Your task to perform on an android device: Clear all items from cart on costco.com. Add "usb-c to usb-a" to the cart on costco.com Image 0: 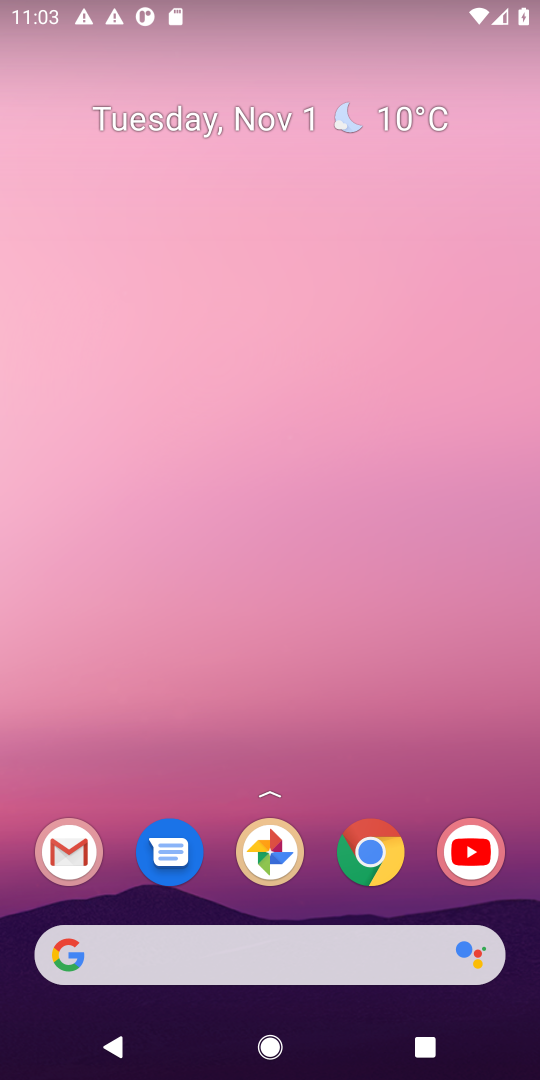
Step 0: click (56, 957)
Your task to perform on an android device: Clear all items from cart on costco.com. Add "usb-c to usb-a" to the cart on costco.com Image 1: 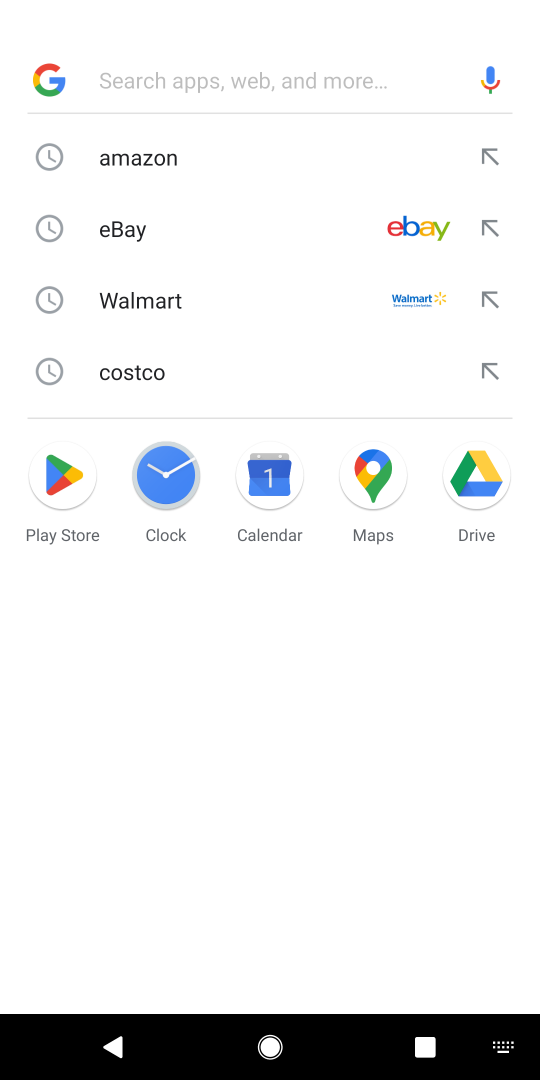
Step 1: click (132, 370)
Your task to perform on an android device: Clear all items from cart on costco.com. Add "usb-c to usb-a" to the cart on costco.com Image 2: 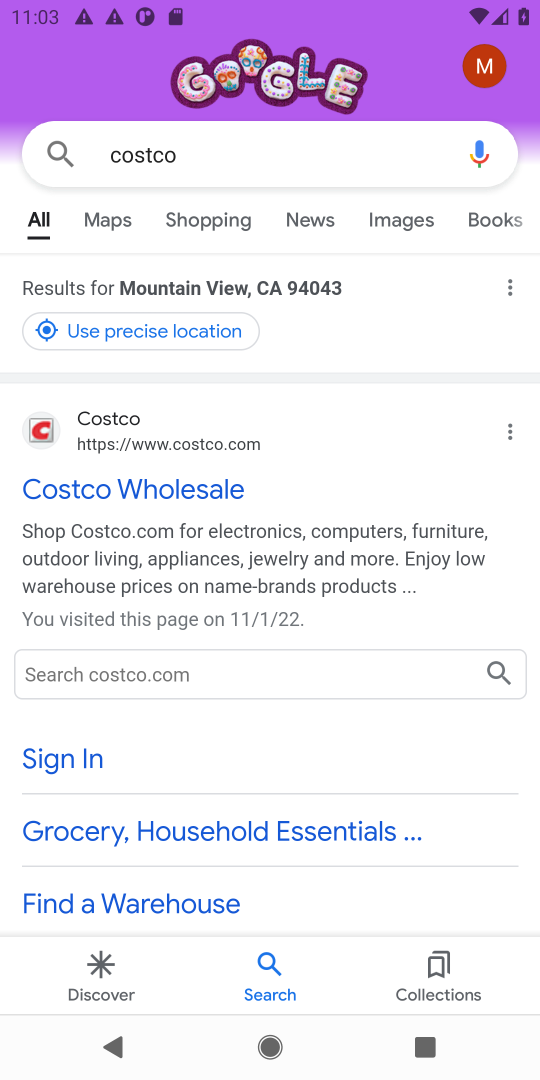
Step 2: click (98, 484)
Your task to perform on an android device: Clear all items from cart on costco.com. Add "usb-c to usb-a" to the cart on costco.com Image 3: 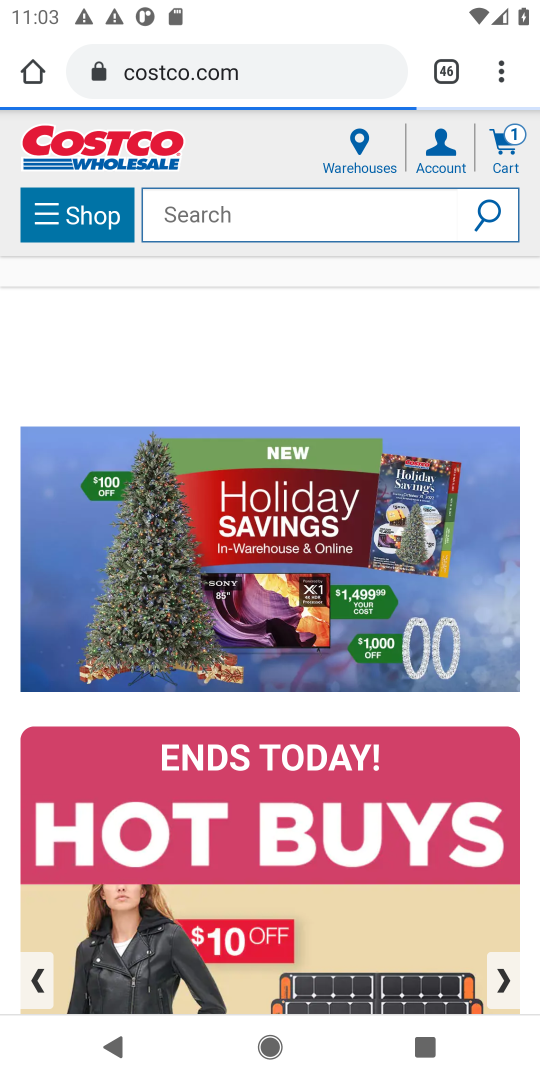
Step 3: click (501, 142)
Your task to perform on an android device: Clear all items from cart on costco.com. Add "usb-c to usb-a" to the cart on costco.com Image 4: 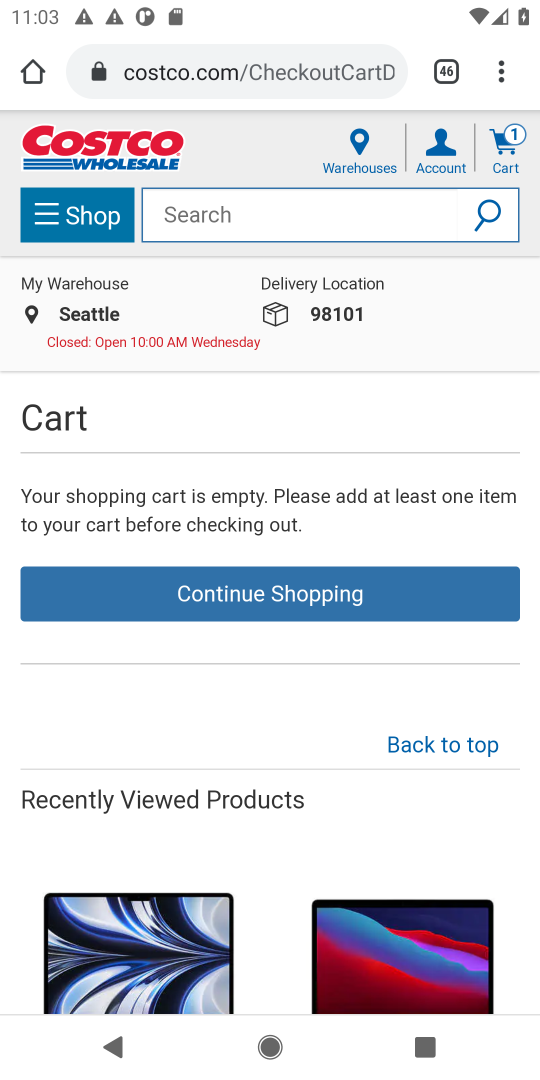
Step 4: drag from (246, 681) to (239, 978)
Your task to perform on an android device: Clear all items from cart on costco.com. Add "usb-c to usb-a" to the cart on costco.com Image 5: 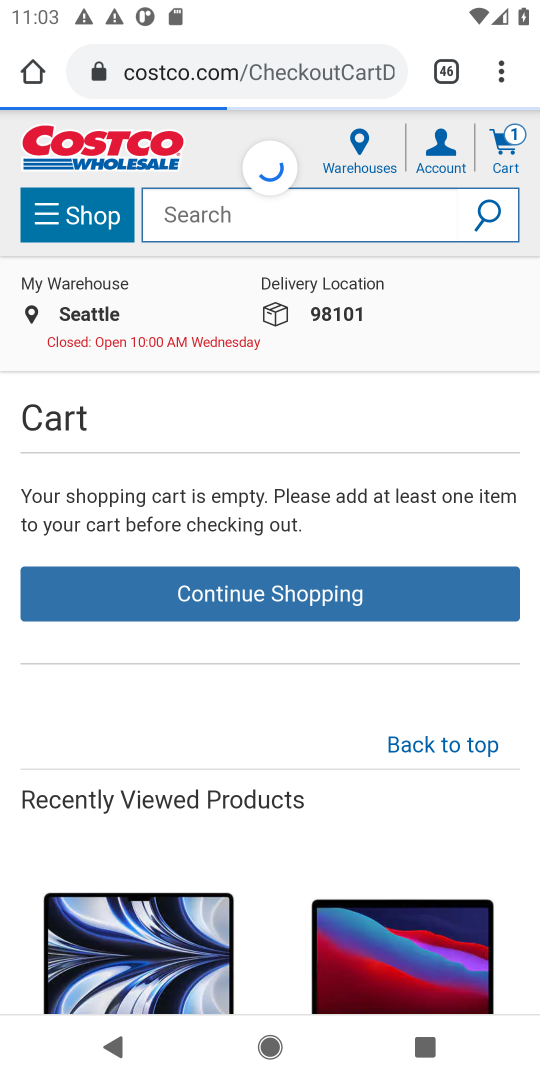
Step 5: drag from (267, 785) to (274, 461)
Your task to perform on an android device: Clear all items from cart on costco.com. Add "usb-c to usb-a" to the cart on costco.com Image 6: 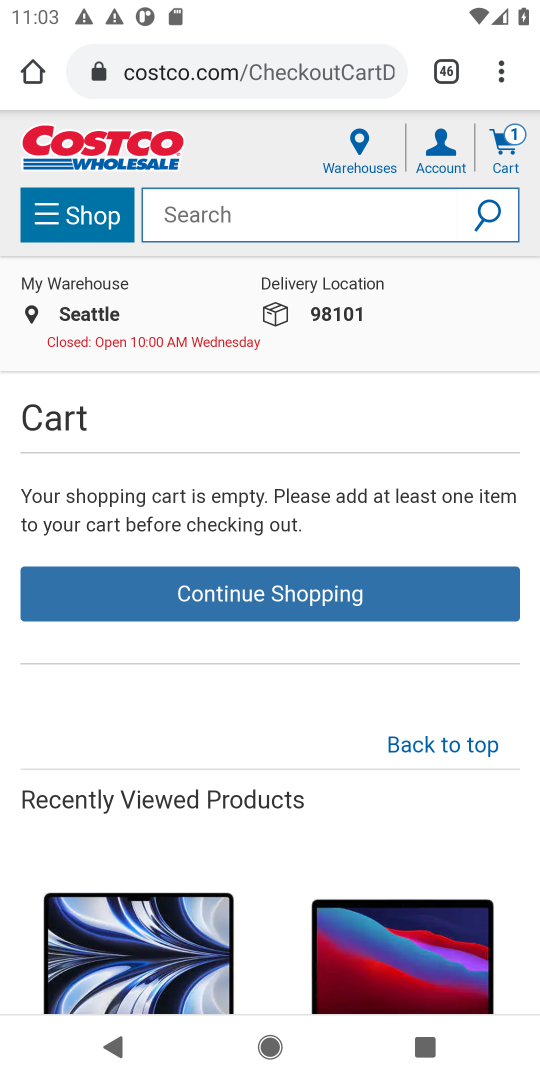
Step 6: click (155, 209)
Your task to perform on an android device: Clear all items from cart on costco.com. Add "usb-c to usb-a" to the cart on costco.com Image 7: 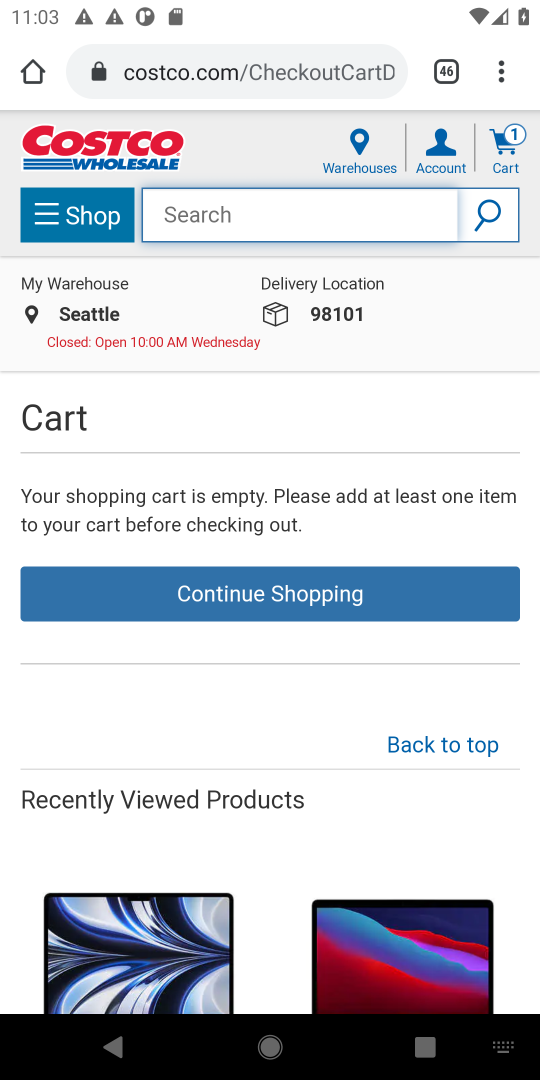
Step 7: type "usb-c to usb-a"
Your task to perform on an android device: Clear all items from cart on costco.com. Add "usb-c to usb-a" to the cart on costco.com Image 8: 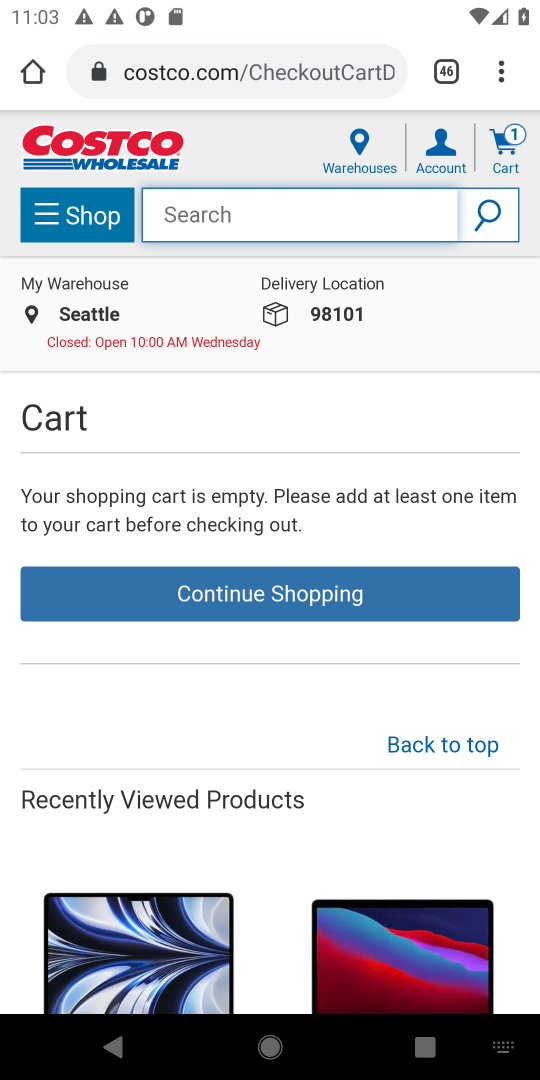
Step 8: click (201, 214)
Your task to perform on an android device: Clear all items from cart on costco.com. Add "usb-c to usb-a" to the cart on costco.com Image 9: 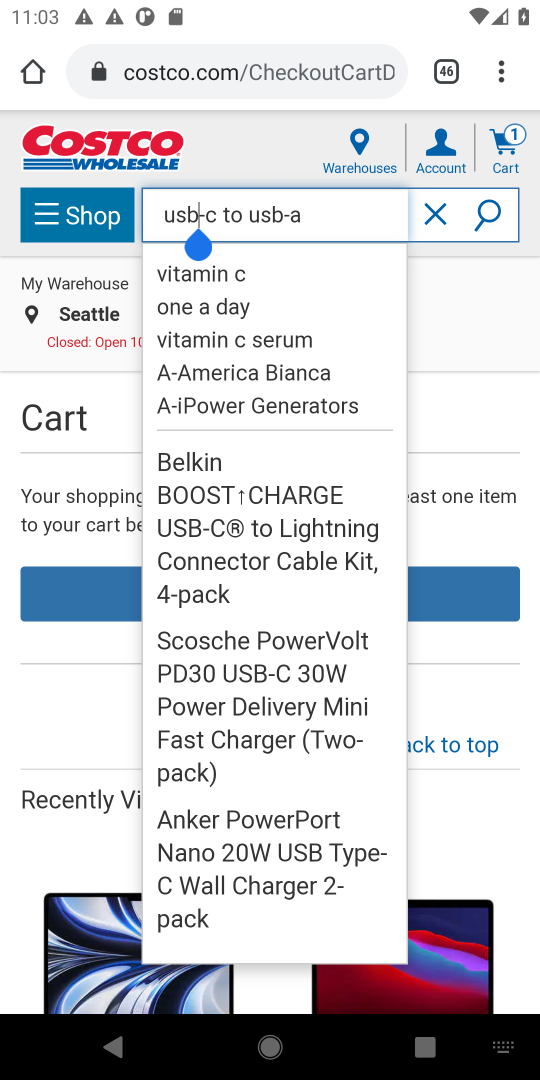
Step 9: press enter
Your task to perform on an android device: Clear all items from cart on costco.com. Add "usb-c to usb-a" to the cart on costco.com Image 10: 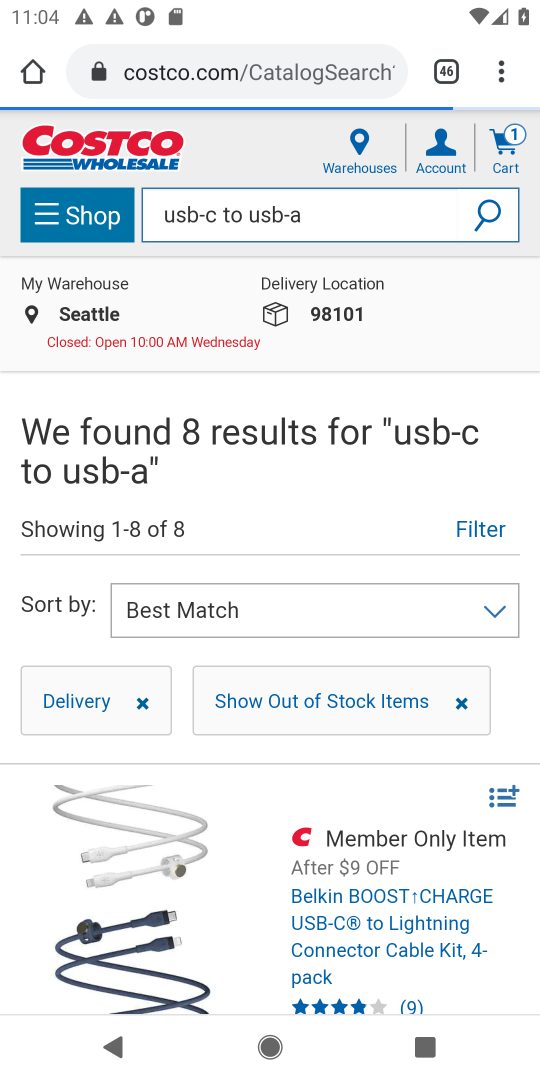
Step 10: task complete